Your task to perform on an android device: Search for Mexican restaurants on Maps Image 0: 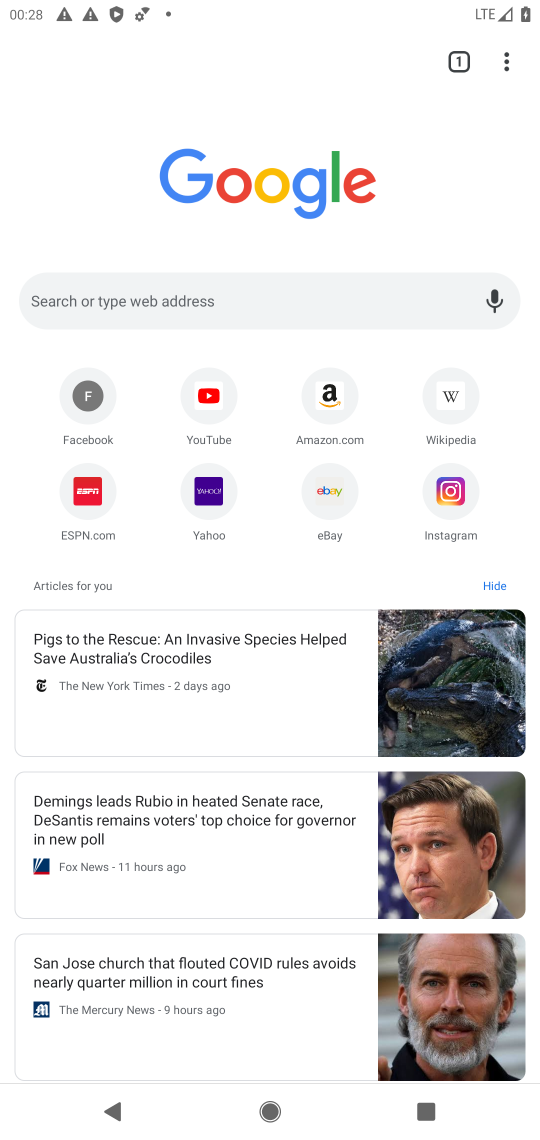
Step 0: press home button
Your task to perform on an android device: Search for Mexican restaurants on Maps Image 1: 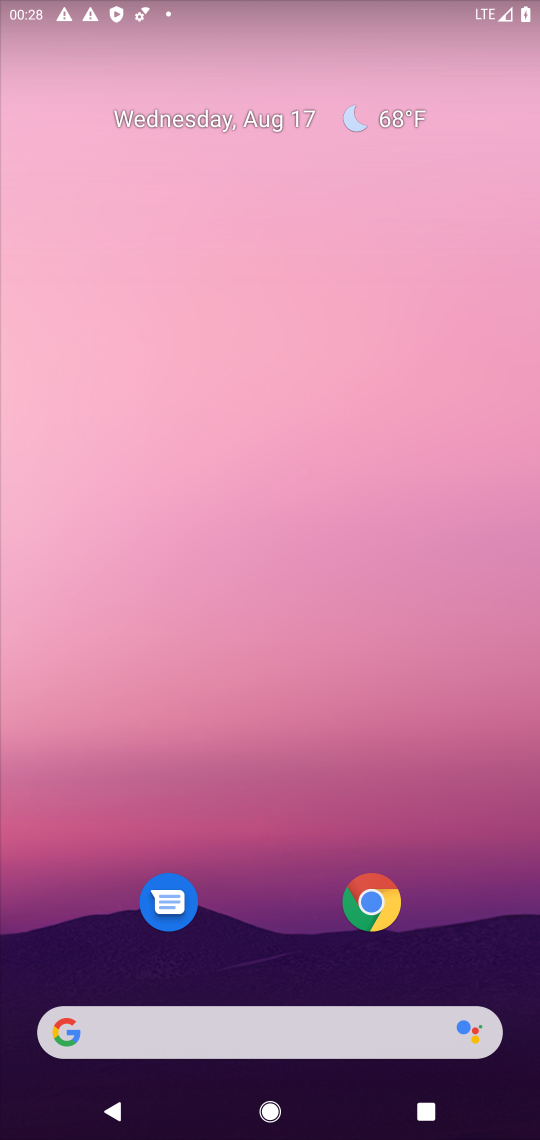
Step 1: drag from (228, 964) to (324, 253)
Your task to perform on an android device: Search for Mexican restaurants on Maps Image 2: 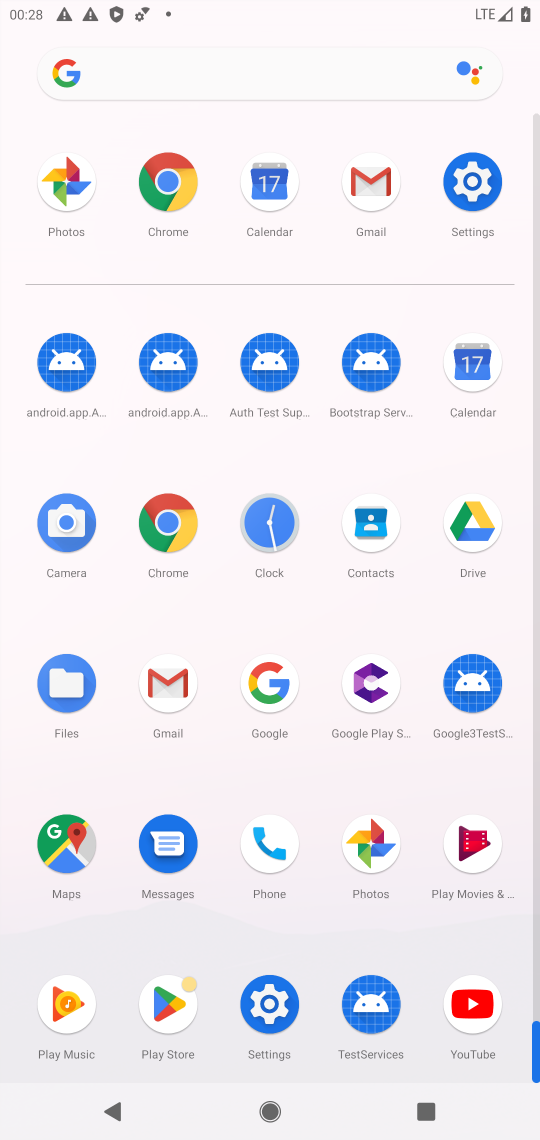
Step 2: click (66, 844)
Your task to perform on an android device: Search for Mexican restaurants on Maps Image 3: 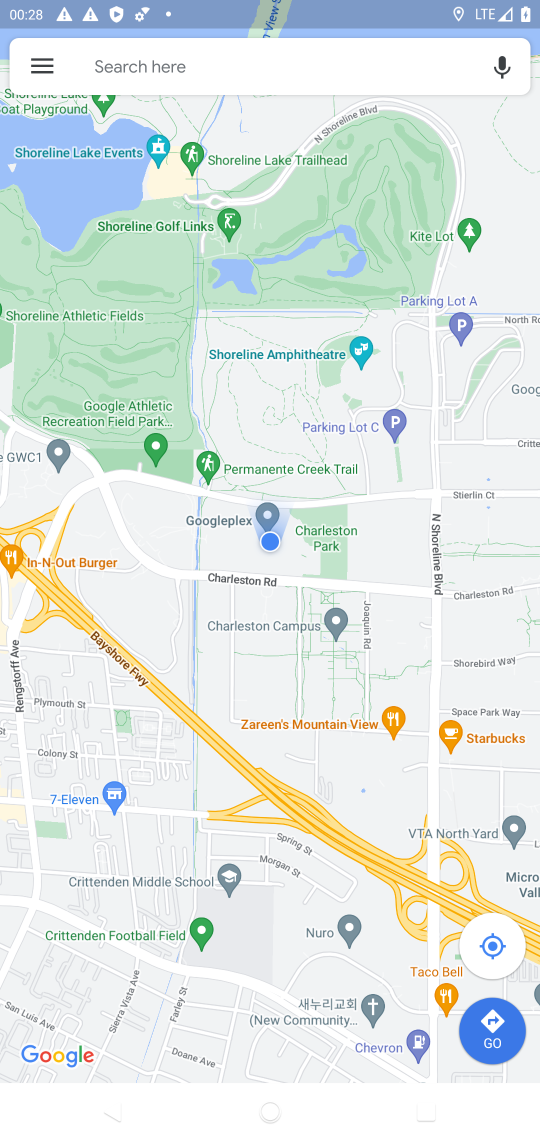
Step 3: click (314, 64)
Your task to perform on an android device: Search for Mexican restaurants on Maps Image 4: 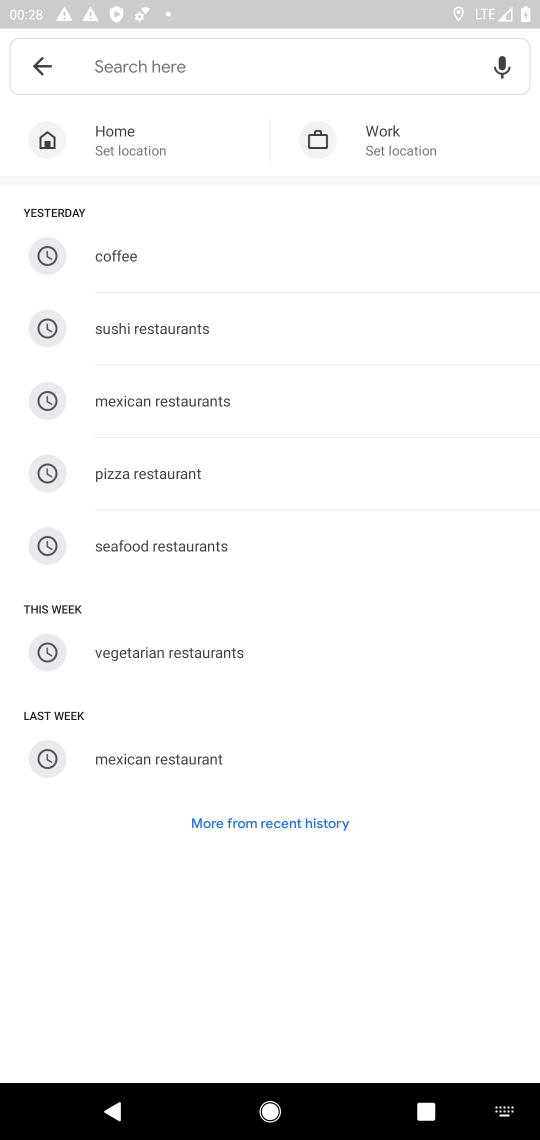
Step 4: type "mexican restaurants"
Your task to perform on an android device: Search for Mexican restaurants on Maps Image 5: 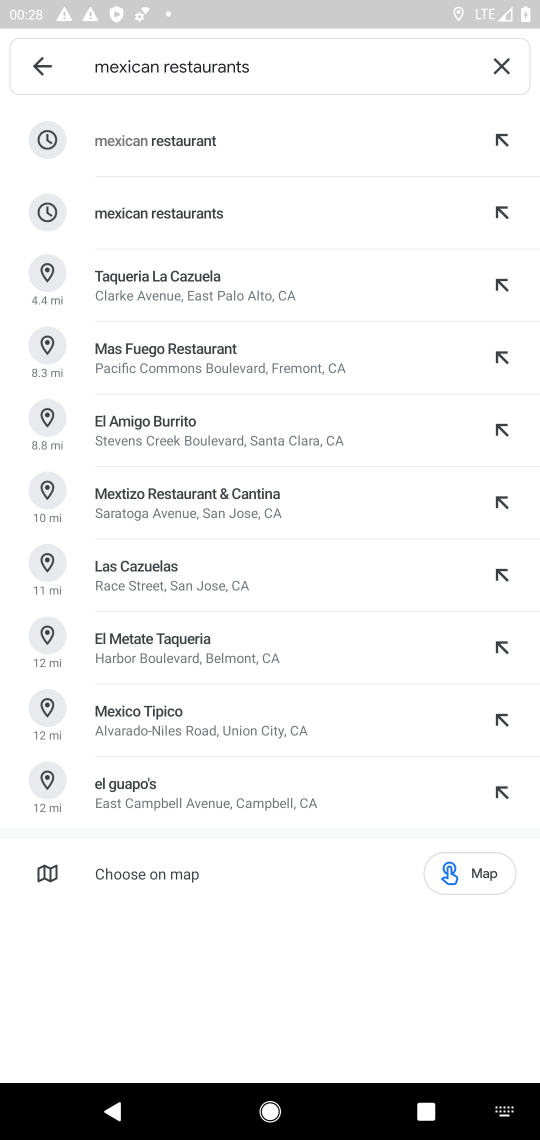
Step 5: click (252, 155)
Your task to perform on an android device: Search for Mexican restaurants on Maps Image 6: 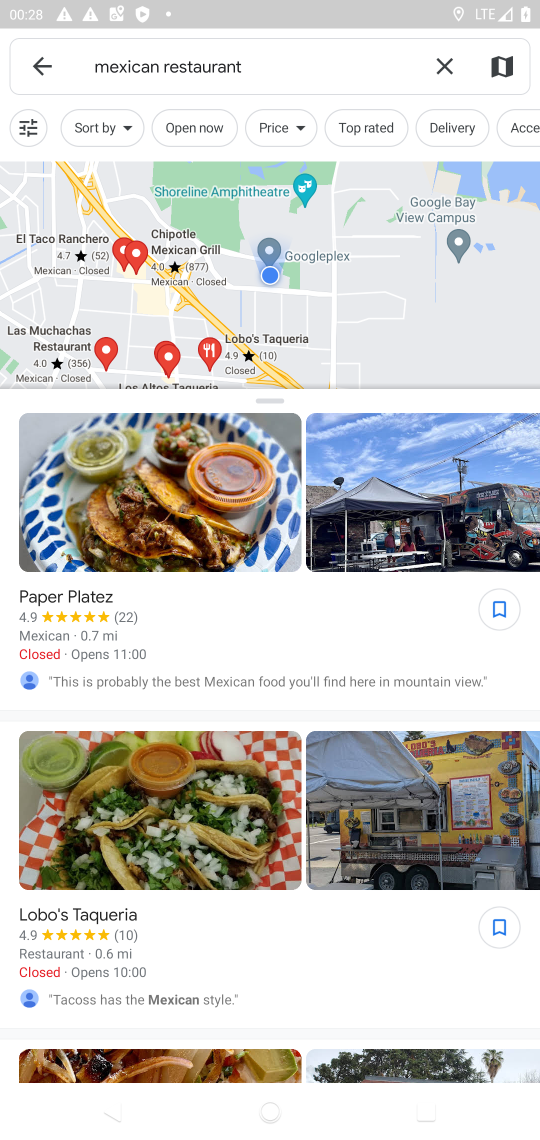
Step 6: task complete